Your task to perform on an android device: Go to accessibility settings Image 0: 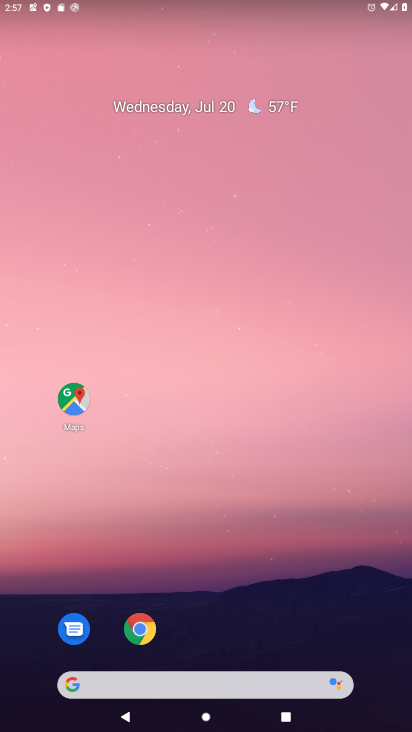
Step 0: drag from (381, 661) to (352, 95)
Your task to perform on an android device: Go to accessibility settings Image 1: 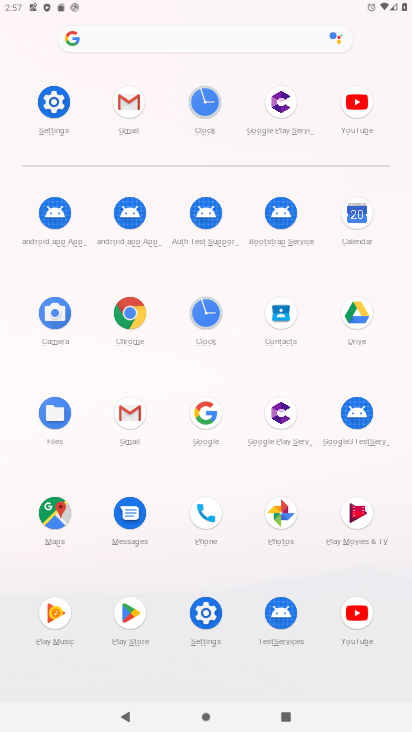
Step 1: click (204, 611)
Your task to perform on an android device: Go to accessibility settings Image 2: 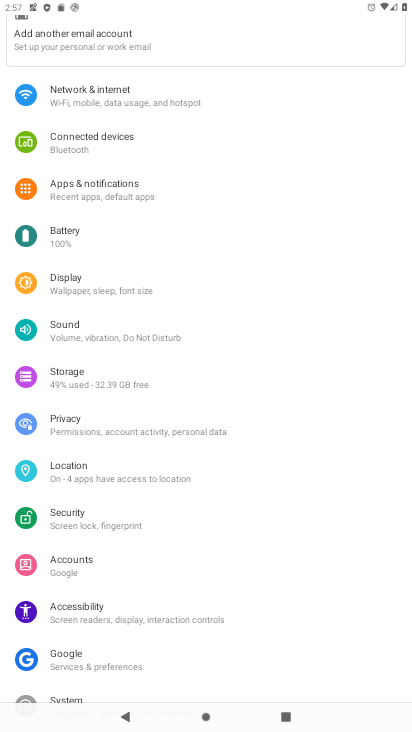
Step 2: click (69, 607)
Your task to perform on an android device: Go to accessibility settings Image 3: 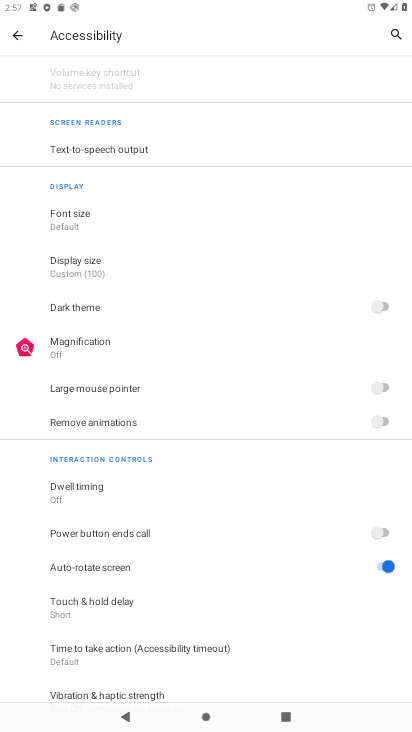
Step 3: task complete